Your task to perform on an android device: Open ESPN.com Image 0: 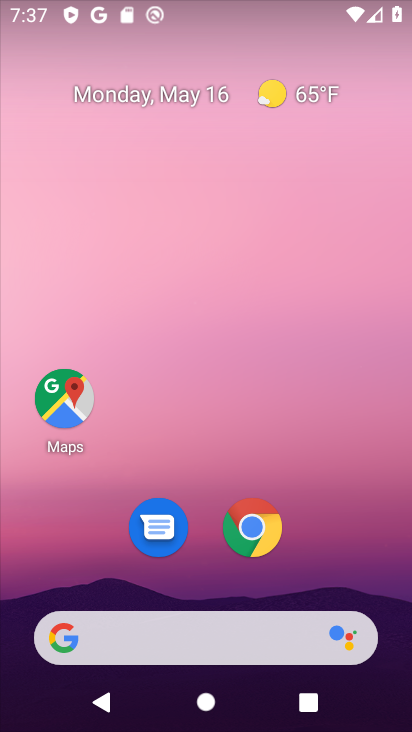
Step 0: drag from (316, 583) to (316, 235)
Your task to perform on an android device: Open ESPN.com Image 1: 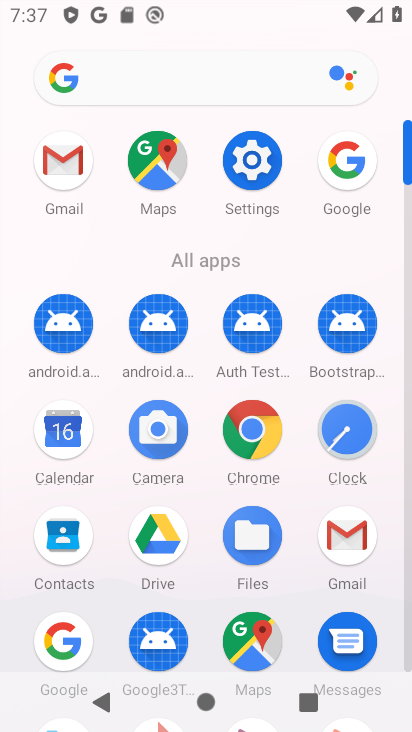
Step 1: click (236, 431)
Your task to perform on an android device: Open ESPN.com Image 2: 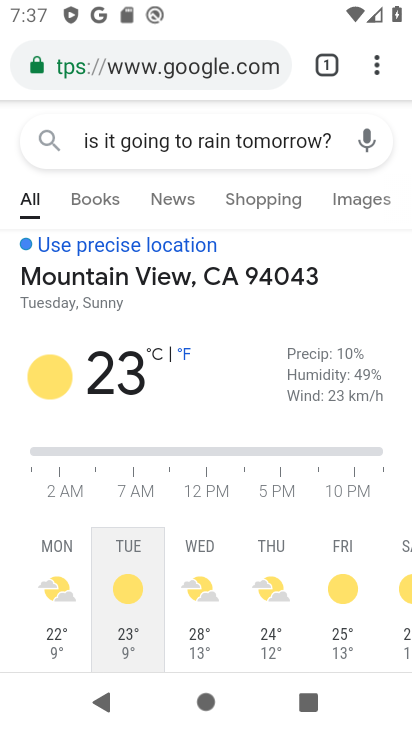
Step 2: click (366, 63)
Your task to perform on an android device: Open ESPN.com Image 3: 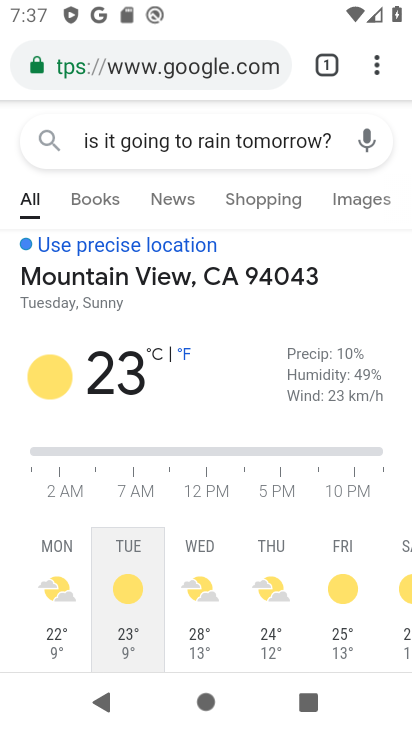
Step 3: click (358, 54)
Your task to perform on an android device: Open ESPN.com Image 4: 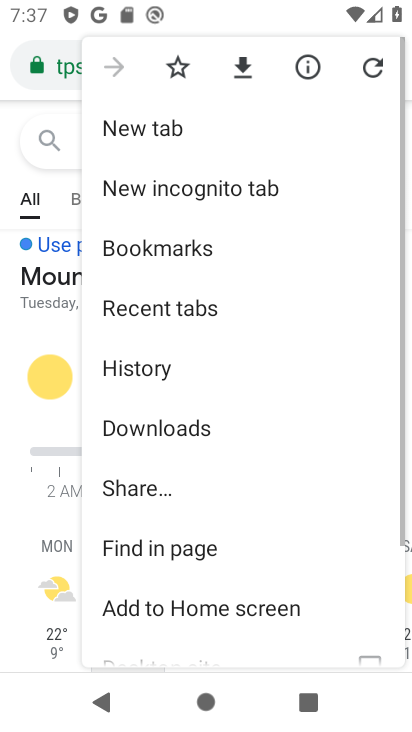
Step 4: click (135, 123)
Your task to perform on an android device: Open ESPN.com Image 5: 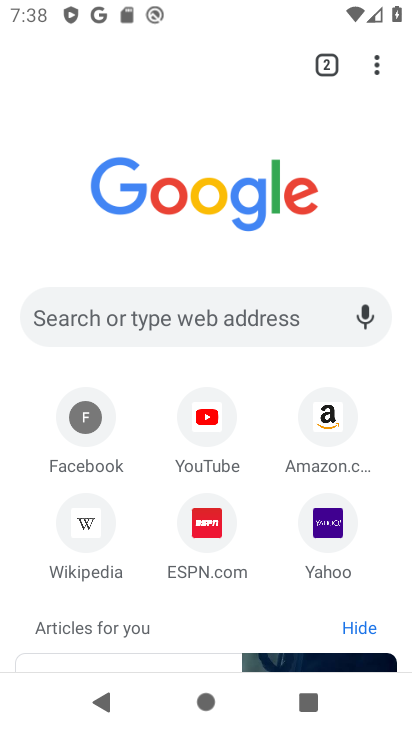
Step 5: click (192, 515)
Your task to perform on an android device: Open ESPN.com Image 6: 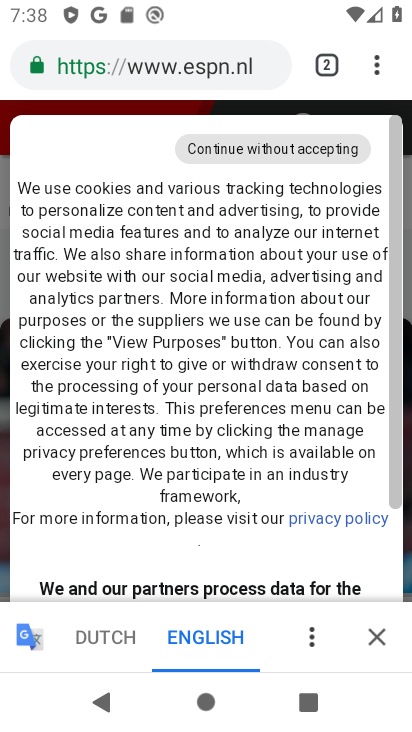
Step 6: click (364, 626)
Your task to perform on an android device: Open ESPN.com Image 7: 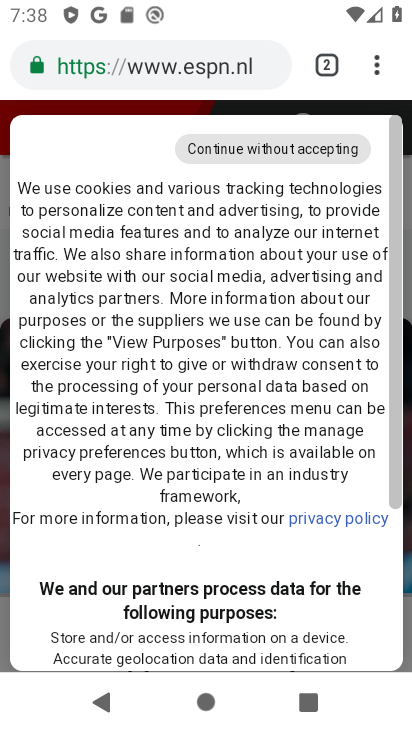
Step 7: drag from (236, 648) to (339, 204)
Your task to perform on an android device: Open ESPN.com Image 8: 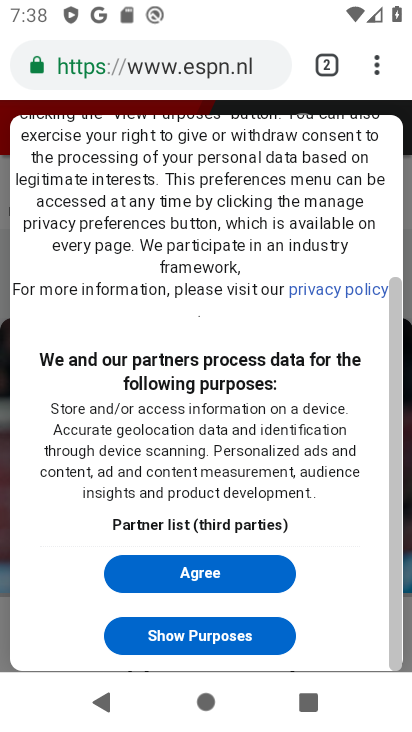
Step 8: click (183, 577)
Your task to perform on an android device: Open ESPN.com Image 9: 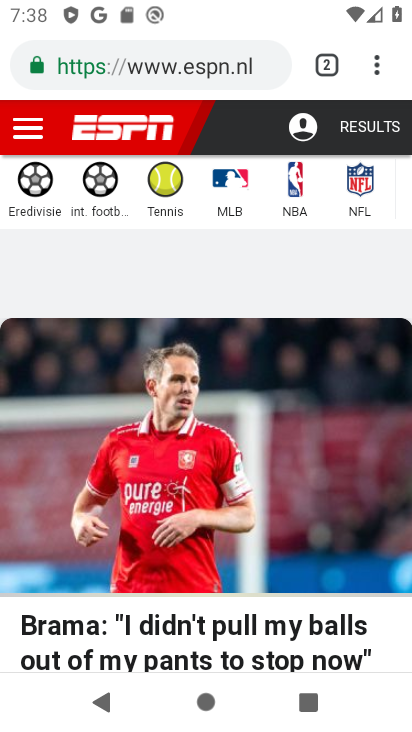
Step 9: task complete